Your task to perform on an android device: Open maps Image 0: 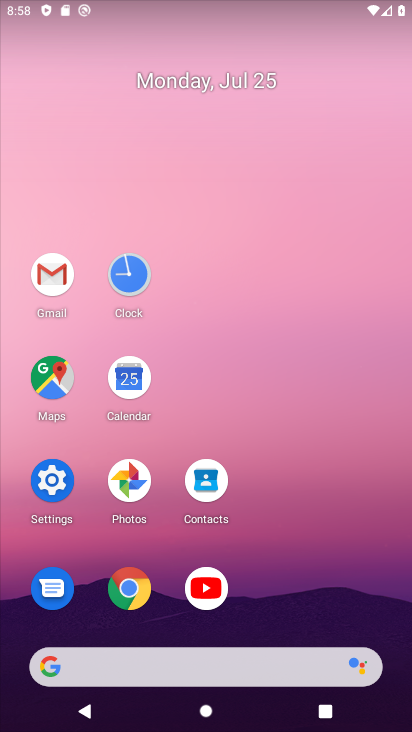
Step 0: click (45, 371)
Your task to perform on an android device: Open maps Image 1: 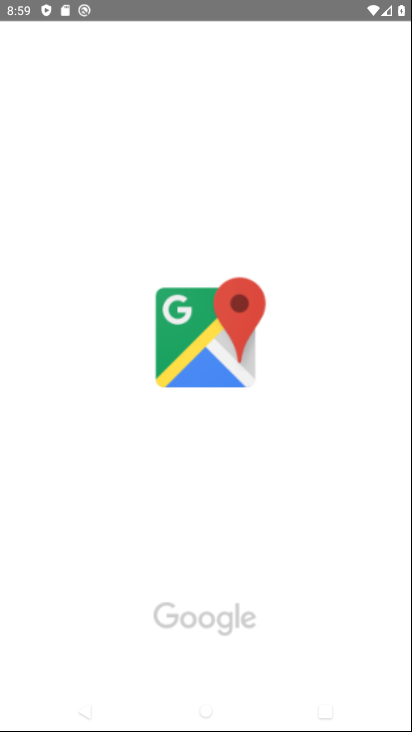
Step 1: task complete